Your task to perform on an android device: turn smart compose on in the gmail app Image 0: 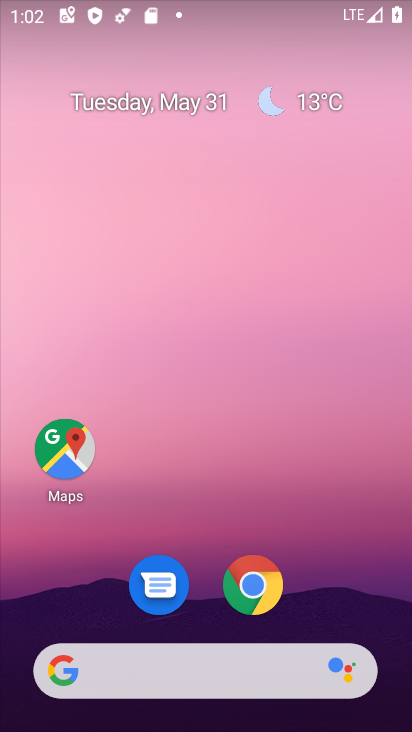
Step 0: drag from (203, 506) to (258, 0)
Your task to perform on an android device: turn smart compose on in the gmail app Image 1: 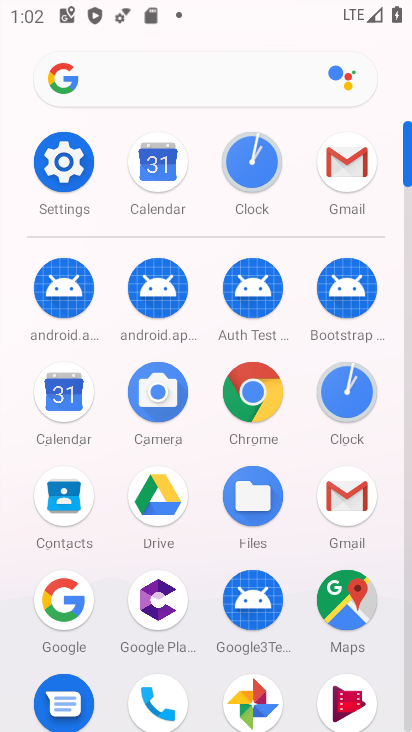
Step 1: click (345, 165)
Your task to perform on an android device: turn smart compose on in the gmail app Image 2: 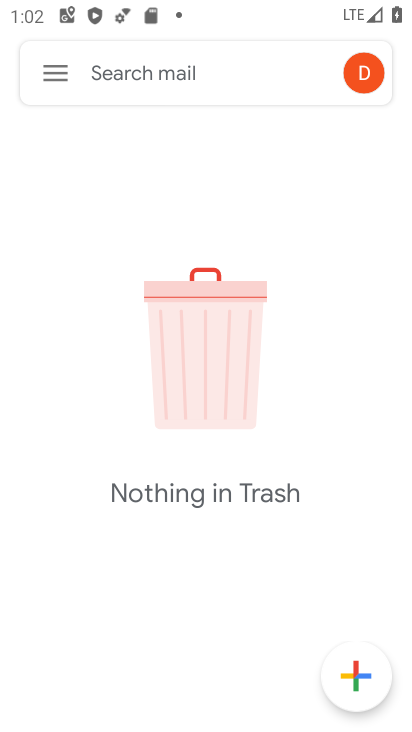
Step 2: click (56, 70)
Your task to perform on an android device: turn smart compose on in the gmail app Image 3: 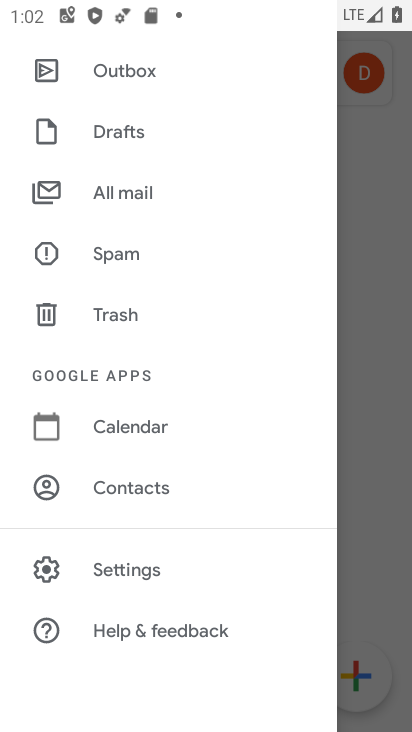
Step 3: click (158, 563)
Your task to perform on an android device: turn smart compose on in the gmail app Image 4: 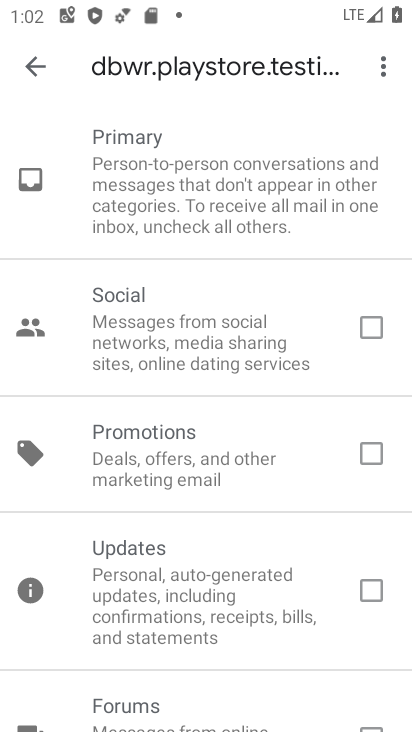
Step 4: drag from (234, 495) to (211, 19)
Your task to perform on an android device: turn smart compose on in the gmail app Image 5: 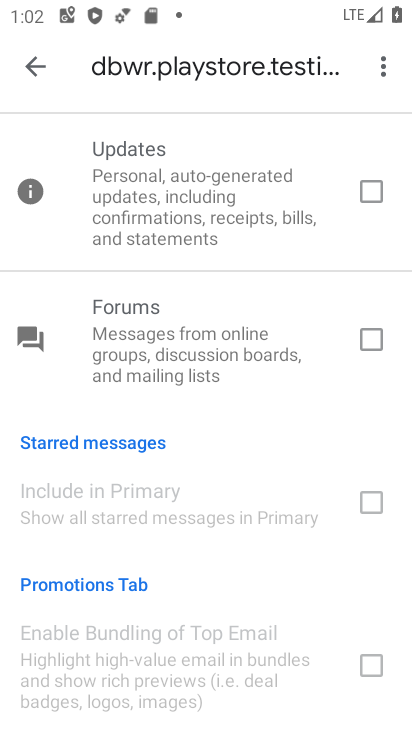
Step 5: drag from (217, 490) to (207, 159)
Your task to perform on an android device: turn smart compose on in the gmail app Image 6: 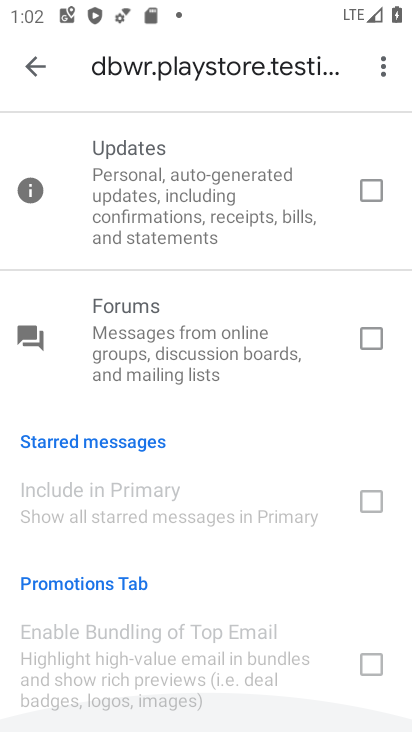
Step 6: drag from (206, 176) to (238, 690)
Your task to perform on an android device: turn smart compose on in the gmail app Image 7: 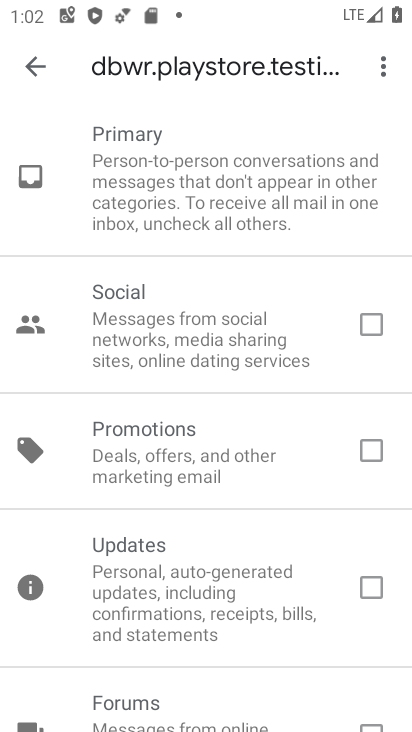
Step 7: drag from (263, 237) to (260, 532)
Your task to perform on an android device: turn smart compose on in the gmail app Image 8: 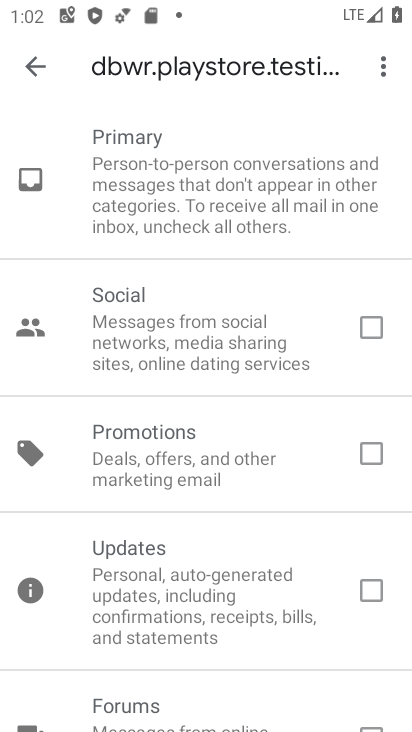
Step 8: click (43, 53)
Your task to perform on an android device: turn smart compose on in the gmail app Image 9: 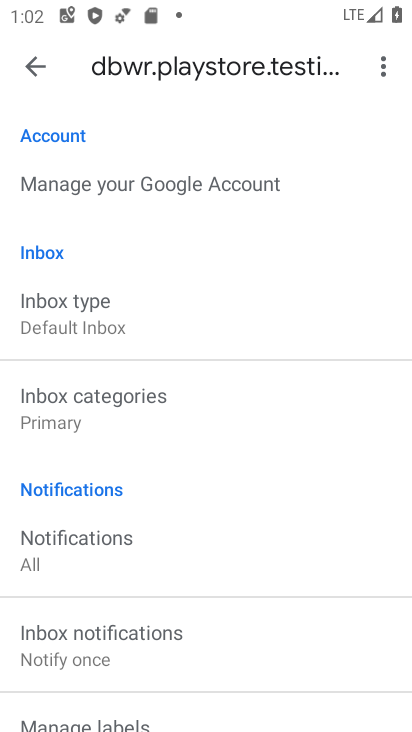
Step 9: task complete